Your task to perform on an android device: Open maps Image 0: 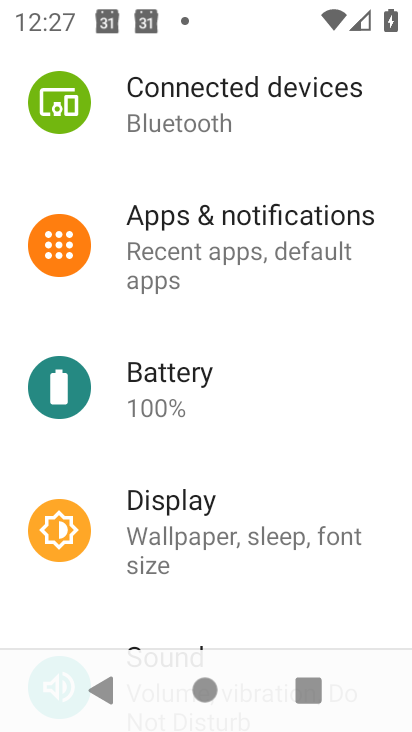
Step 0: press home button
Your task to perform on an android device: Open maps Image 1: 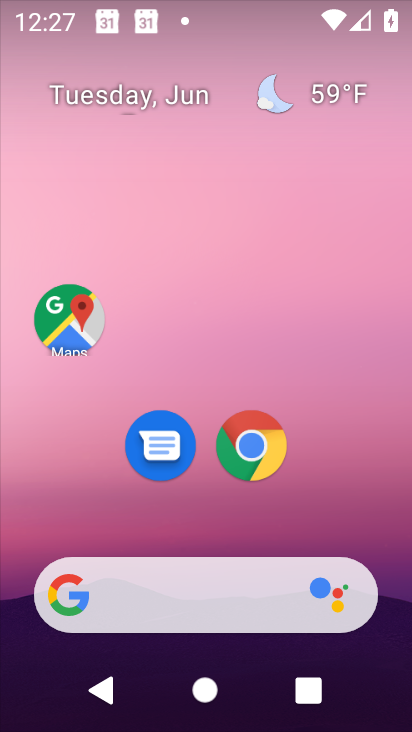
Step 1: click (88, 311)
Your task to perform on an android device: Open maps Image 2: 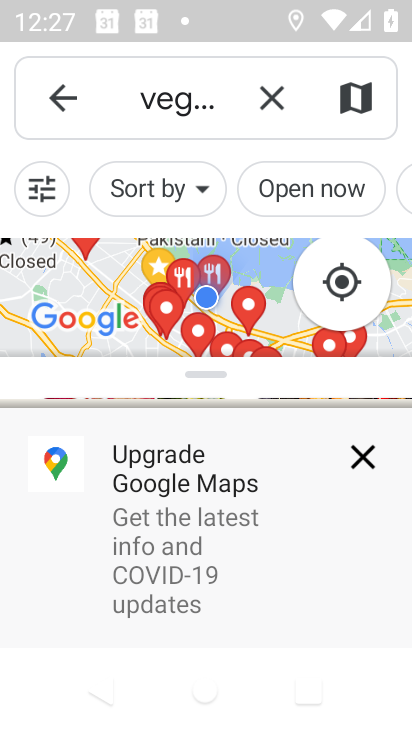
Step 2: task complete